Your task to perform on an android device: Open ESPN.com Image 0: 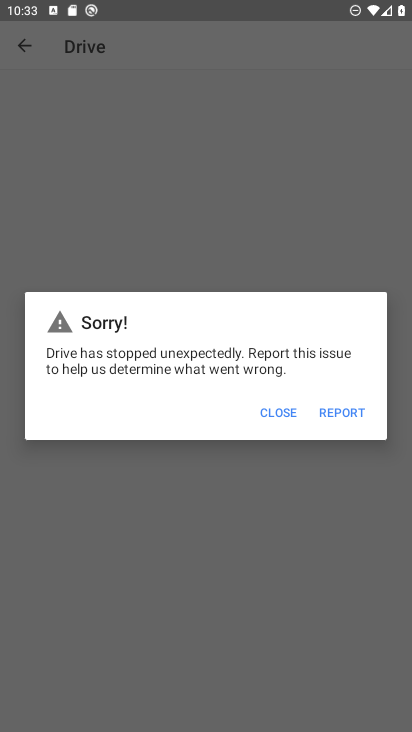
Step 0: press home button
Your task to perform on an android device: Open ESPN.com Image 1: 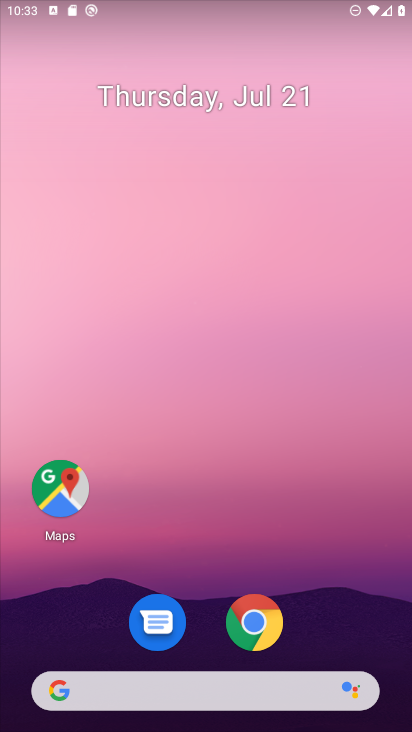
Step 1: click (235, 695)
Your task to perform on an android device: Open ESPN.com Image 2: 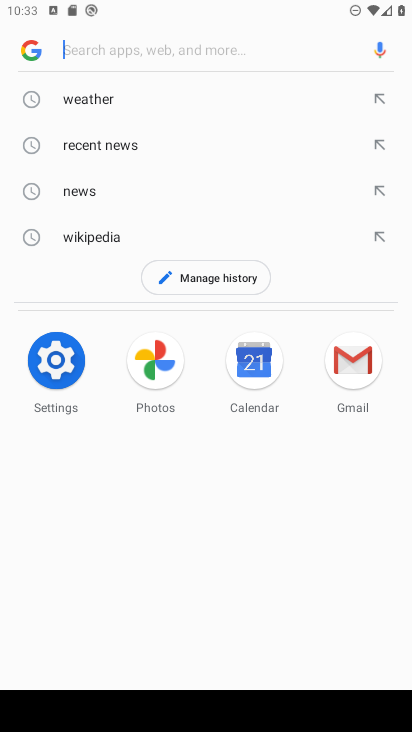
Step 2: type "espn.com"
Your task to perform on an android device: Open ESPN.com Image 3: 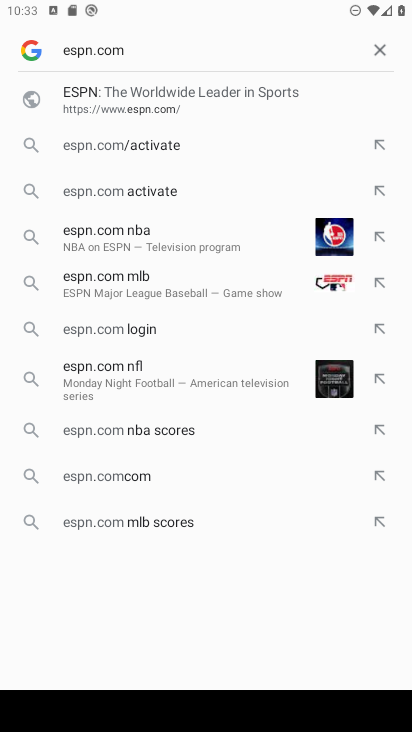
Step 3: click (107, 98)
Your task to perform on an android device: Open ESPN.com Image 4: 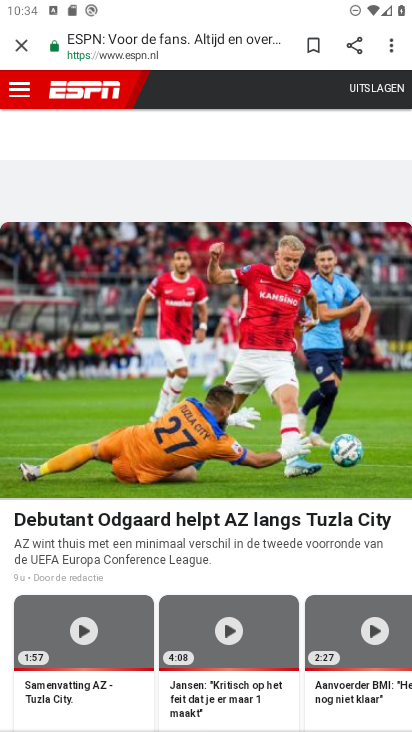
Step 4: task complete